Your task to perform on an android device: open wifi settings Image 0: 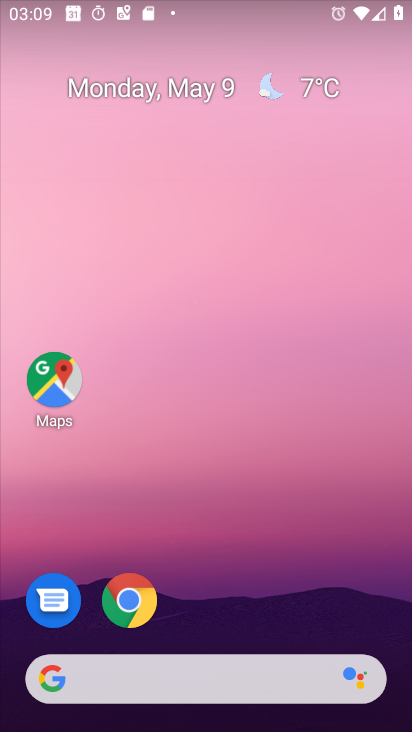
Step 0: drag from (237, 677) to (225, 77)
Your task to perform on an android device: open wifi settings Image 1: 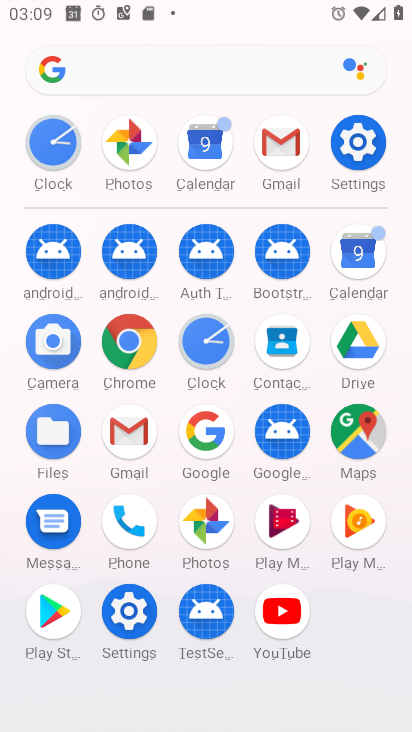
Step 1: click (353, 154)
Your task to perform on an android device: open wifi settings Image 2: 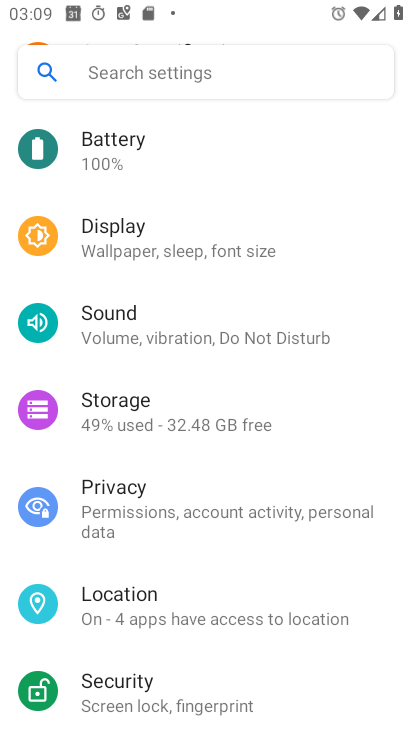
Step 2: drag from (172, 201) to (201, 450)
Your task to perform on an android device: open wifi settings Image 3: 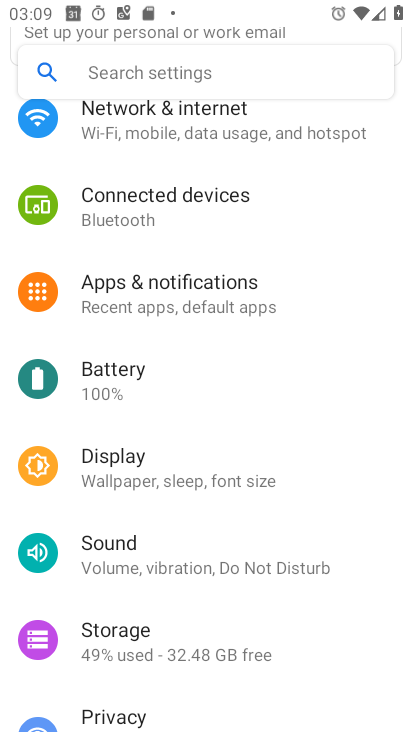
Step 3: click (192, 132)
Your task to perform on an android device: open wifi settings Image 4: 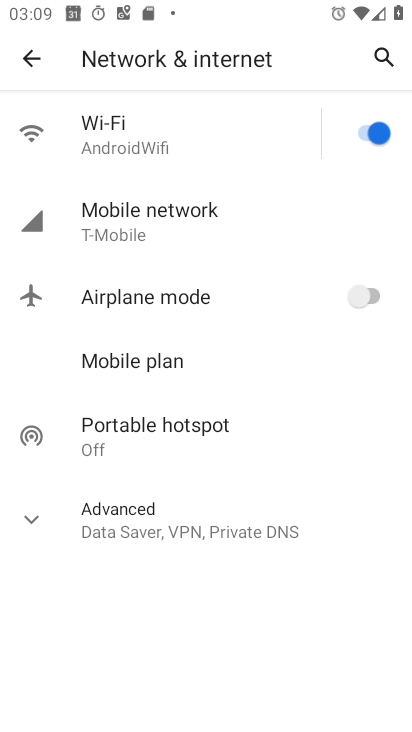
Step 4: click (158, 155)
Your task to perform on an android device: open wifi settings Image 5: 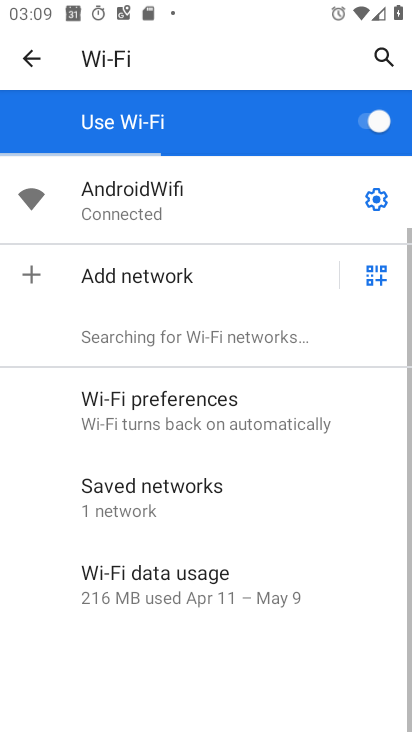
Step 5: task complete